Your task to perform on an android device: open app "The Home Depot" Image 0: 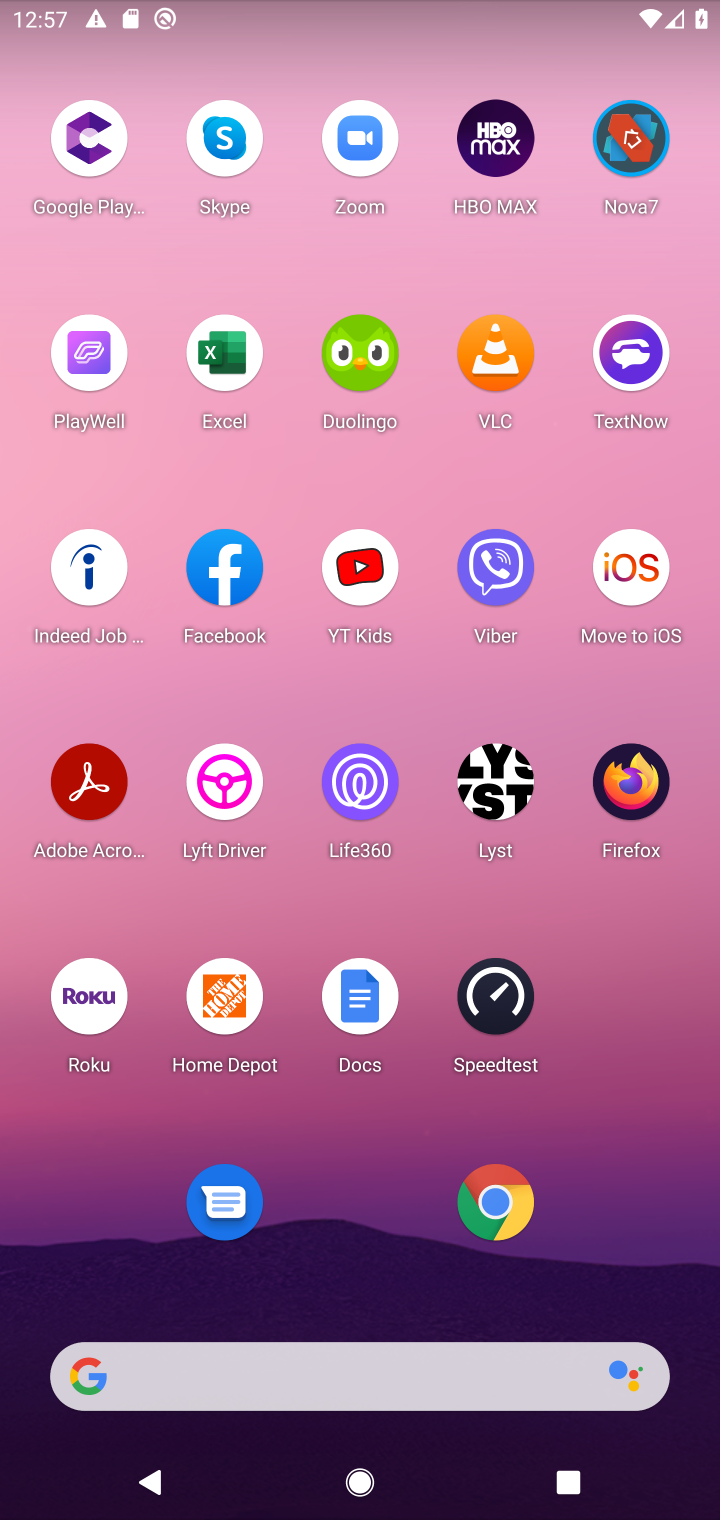
Step 0: click (343, 1352)
Your task to perform on an android device: open app "The Home Depot" Image 1: 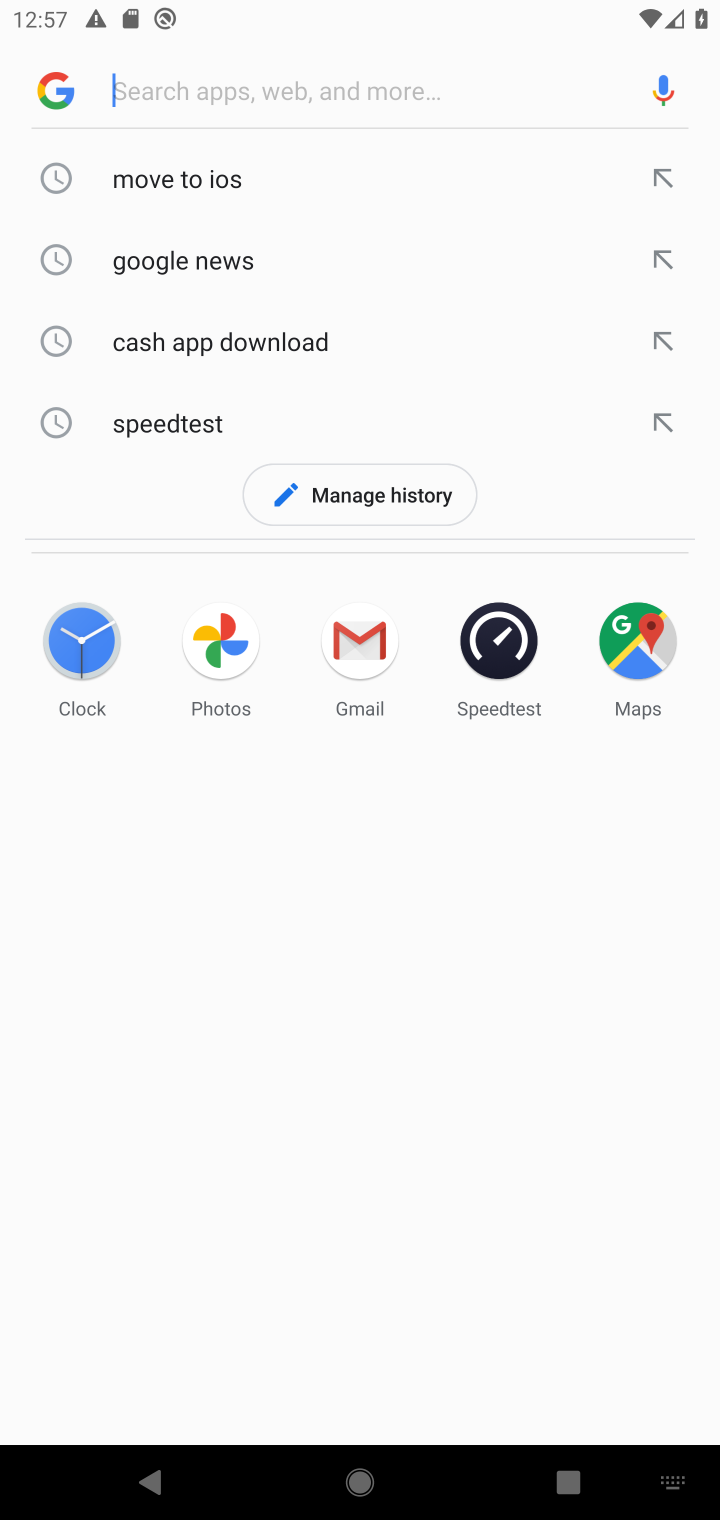
Step 1: type "home  depot"
Your task to perform on an android device: open app "The Home Depot" Image 2: 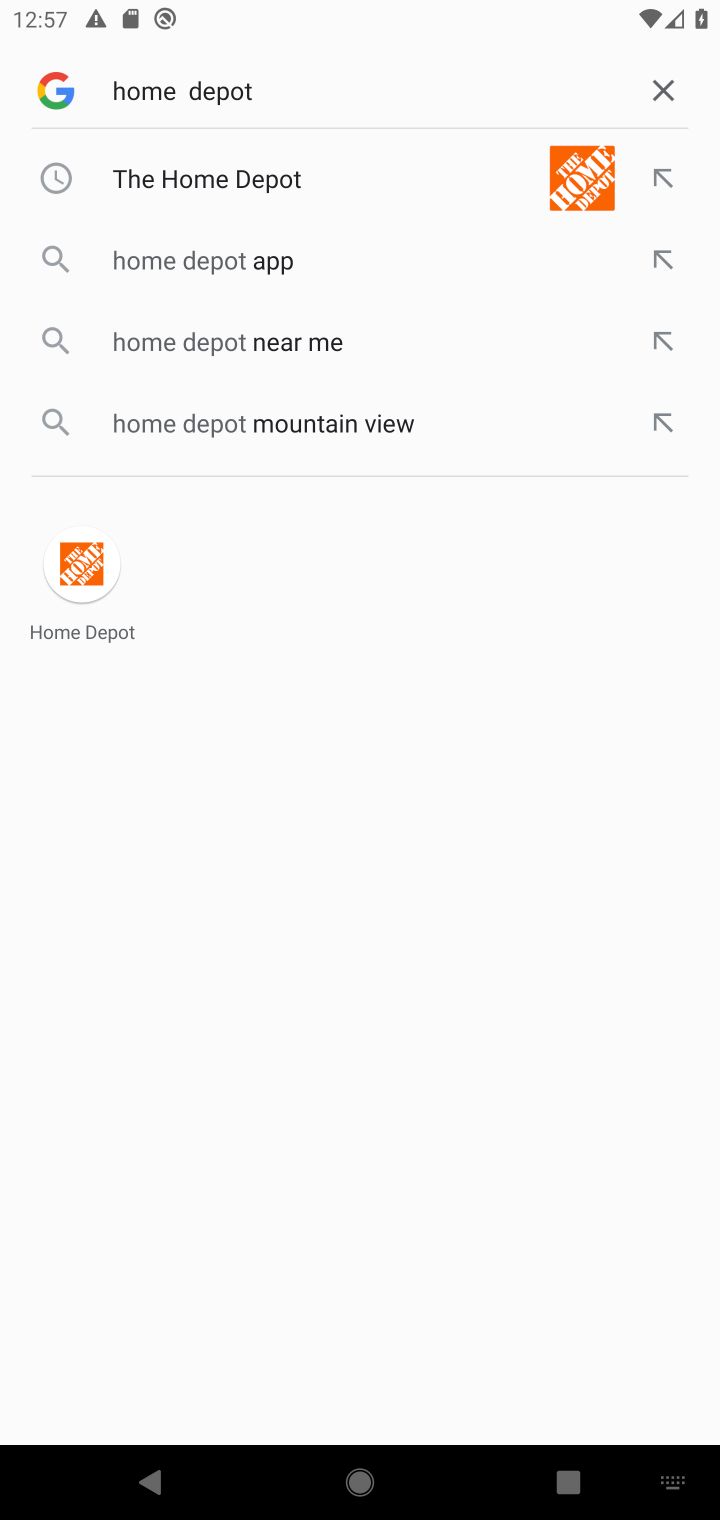
Step 2: click (316, 188)
Your task to perform on an android device: open app "The Home Depot" Image 3: 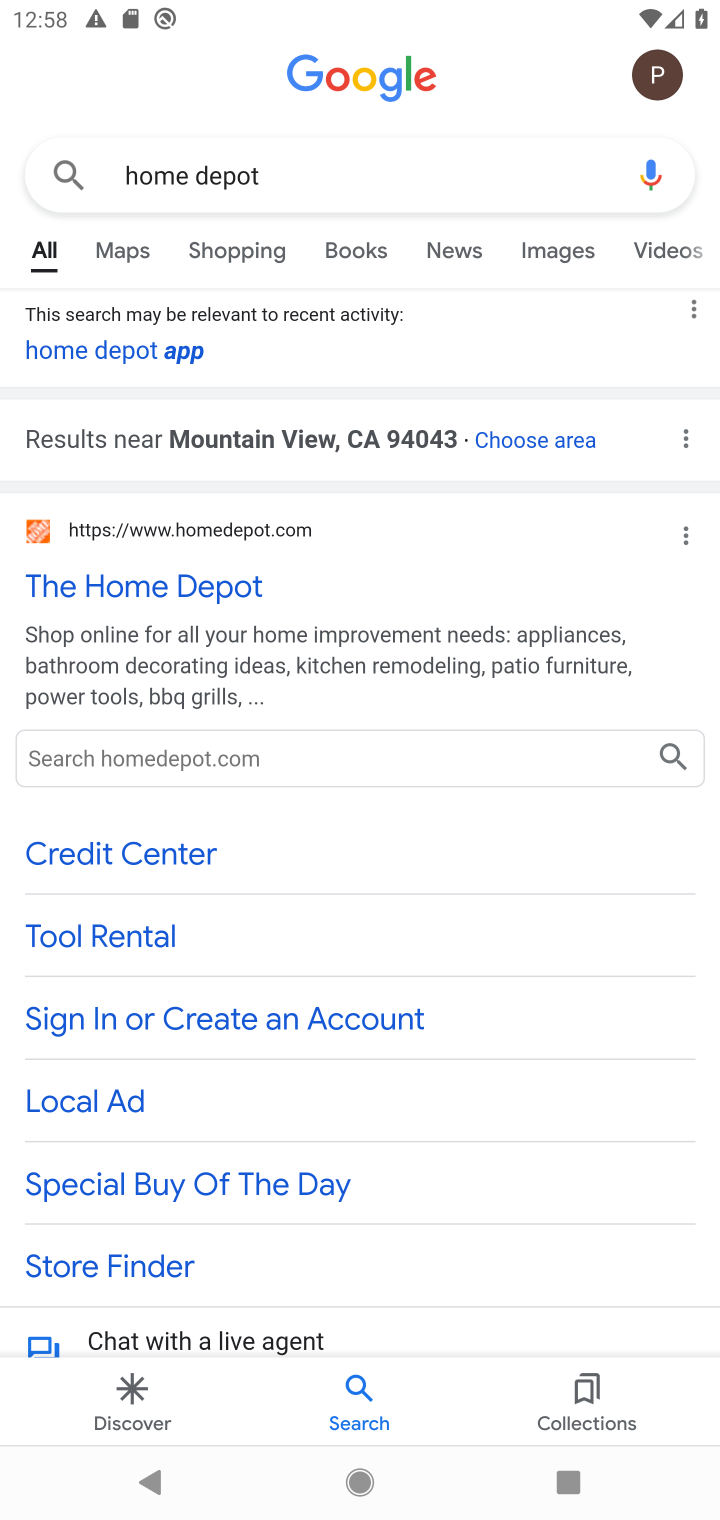
Step 3: drag from (508, 1279) to (488, 504)
Your task to perform on an android device: open app "The Home Depot" Image 4: 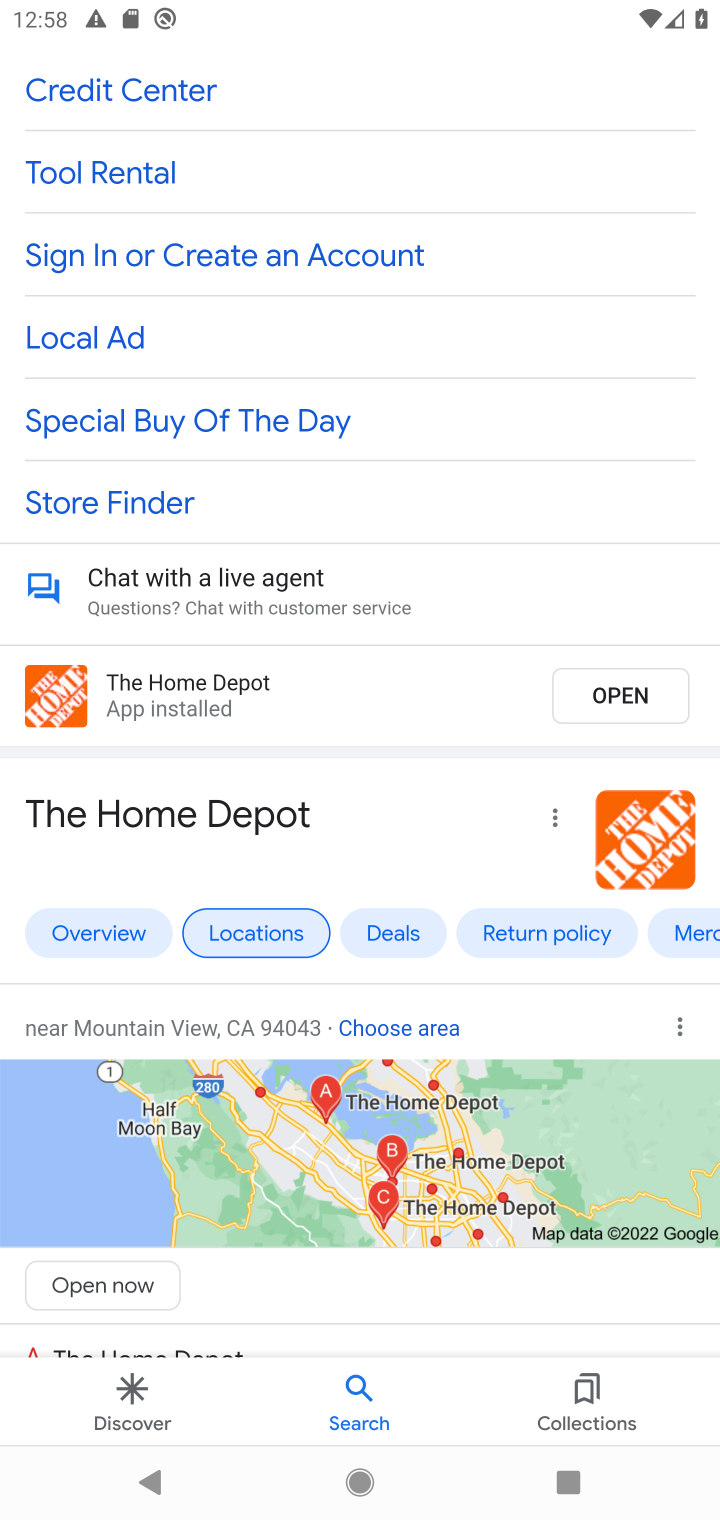
Step 4: drag from (497, 1170) to (452, 788)
Your task to perform on an android device: open app "The Home Depot" Image 5: 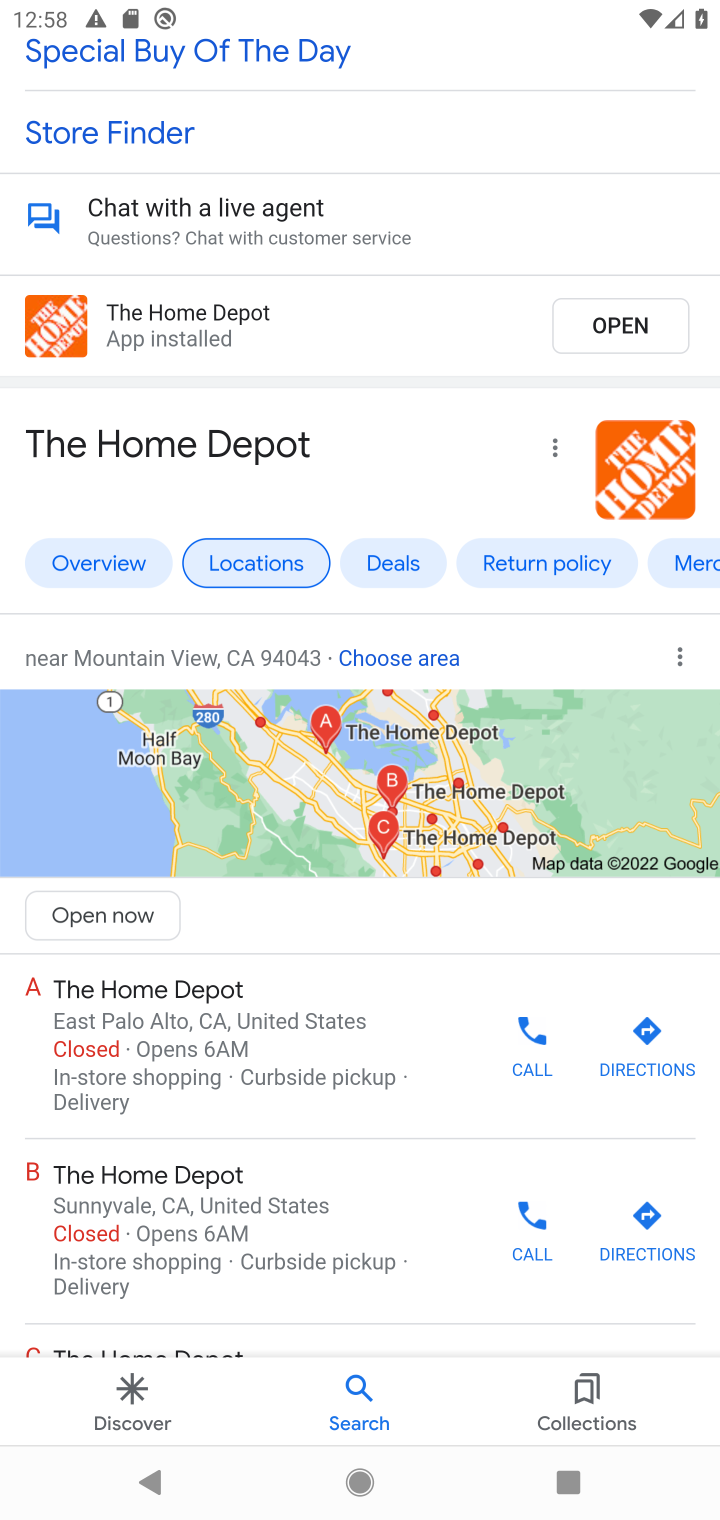
Step 5: click (615, 337)
Your task to perform on an android device: open app "The Home Depot" Image 6: 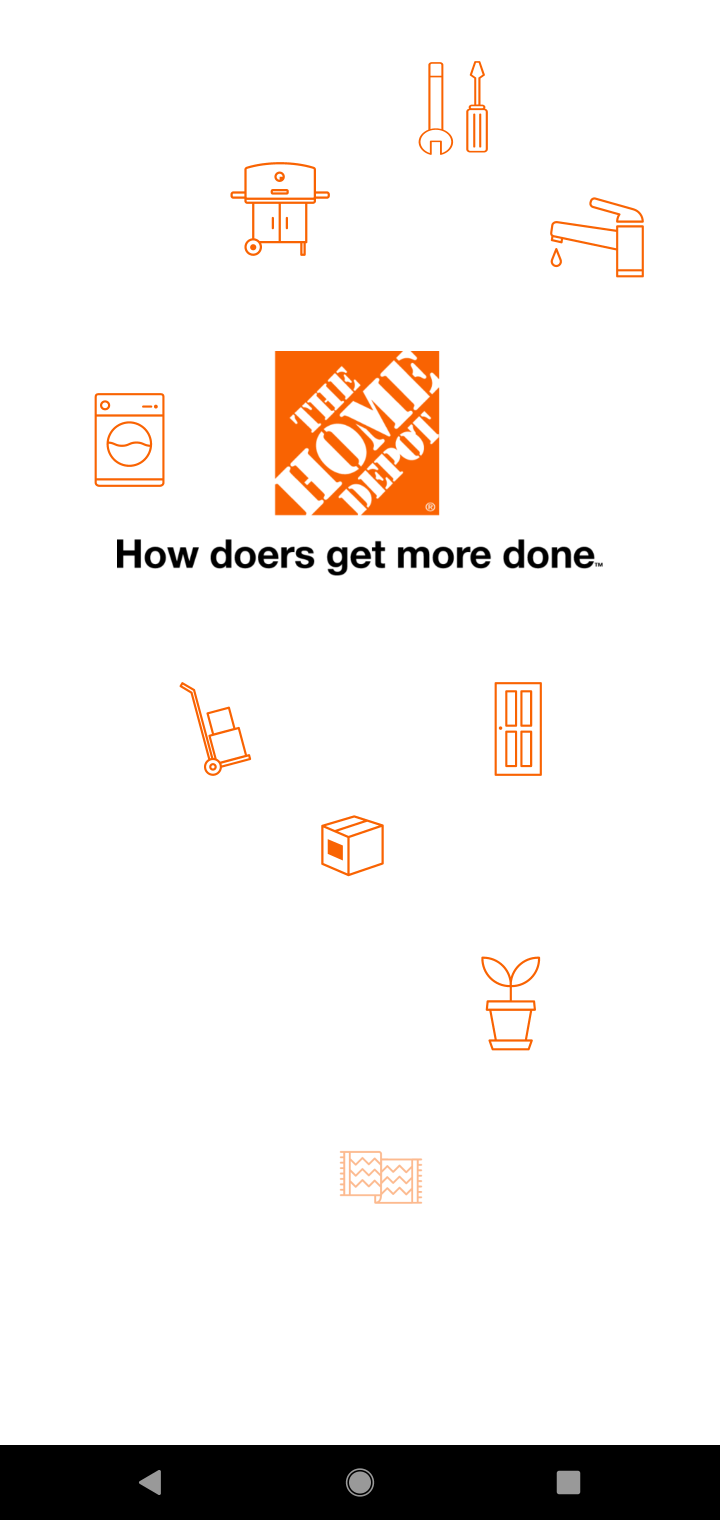
Step 6: task complete